Your task to perform on an android device: Go to Google maps Image 0: 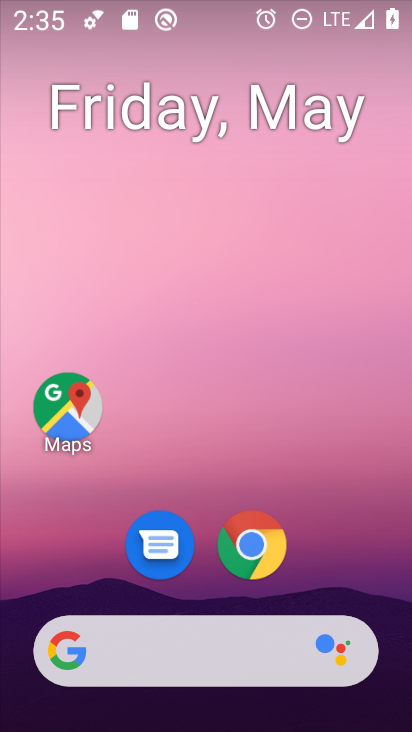
Step 0: drag from (262, 326) to (244, 286)
Your task to perform on an android device: Go to Google maps Image 1: 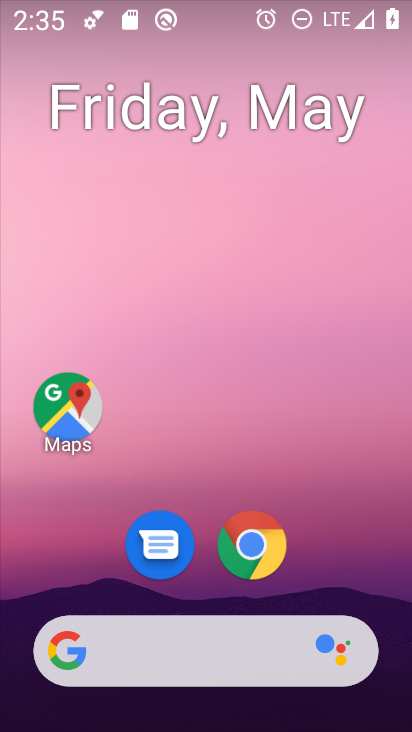
Step 1: click (64, 411)
Your task to perform on an android device: Go to Google maps Image 2: 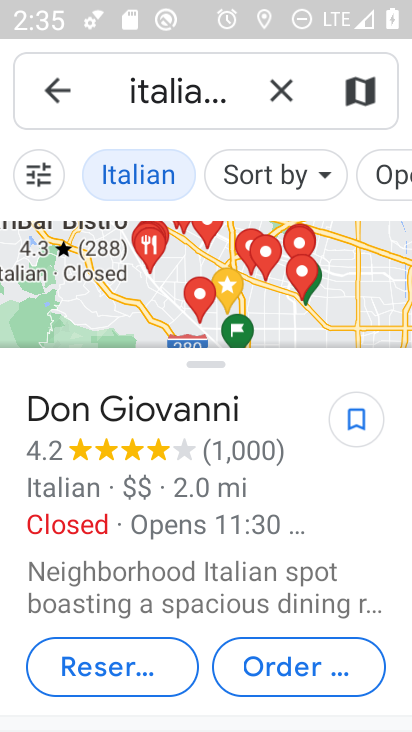
Step 2: task complete